Your task to perform on an android device: Toggle the flashlight Image 0: 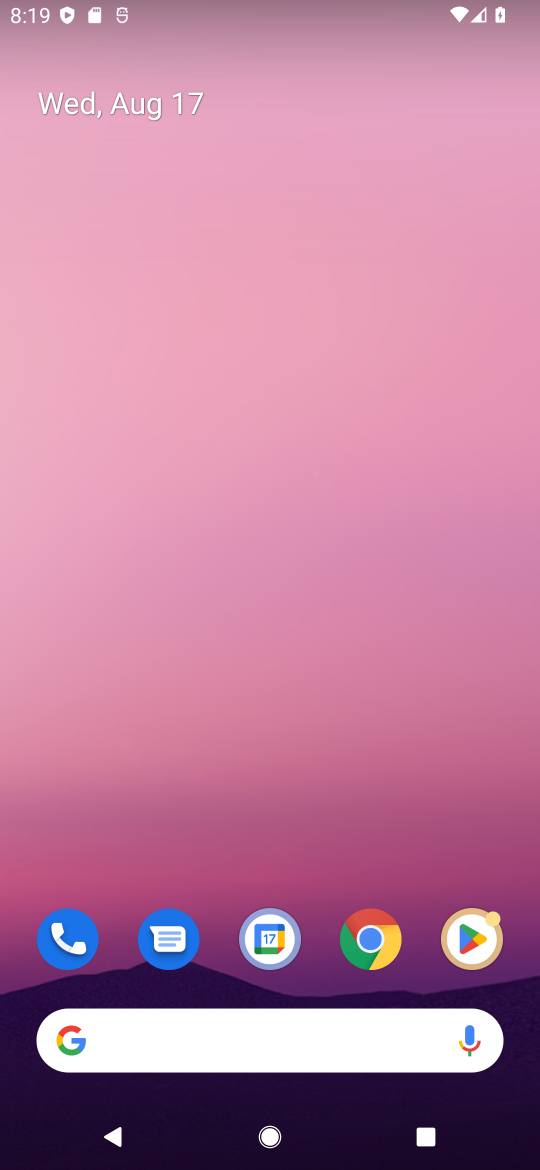
Step 0: drag from (186, 8) to (269, 693)
Your task to perform on an android device: Toggle the flashlight Image 1: 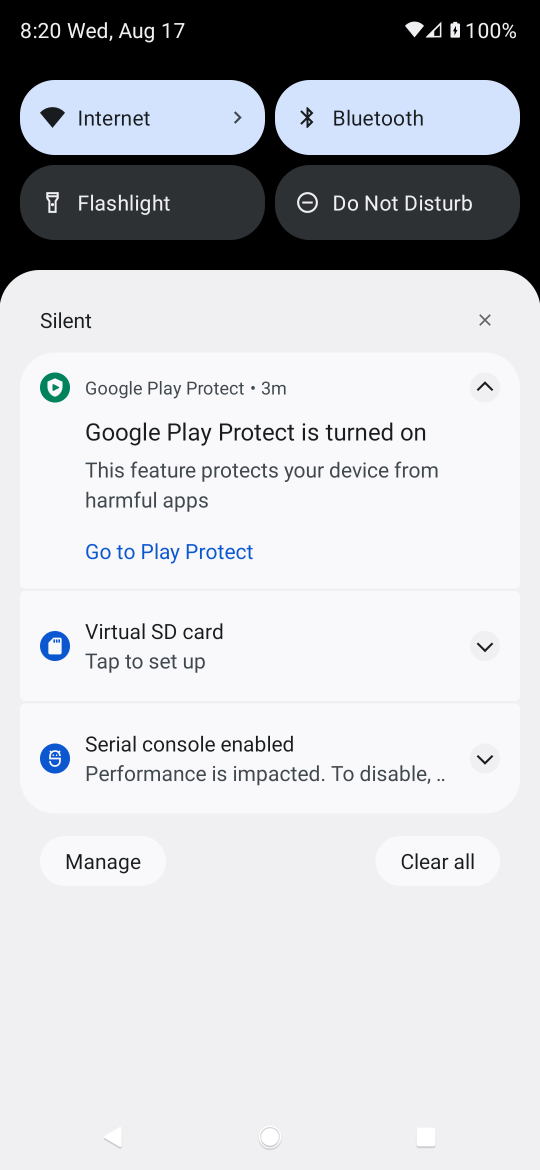
Step 1: task complete